Your task to perform on an android device: change the clock style Image 0: 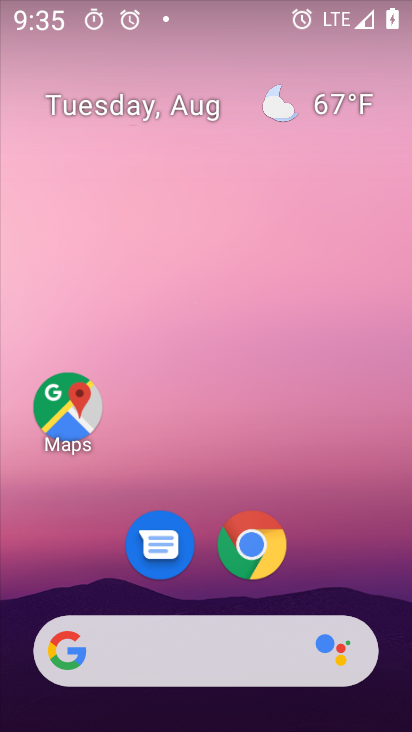
Step 0: drag from (235, 599) to (293, 3)
Your task to perform on an android device: change the clock style Image 1: 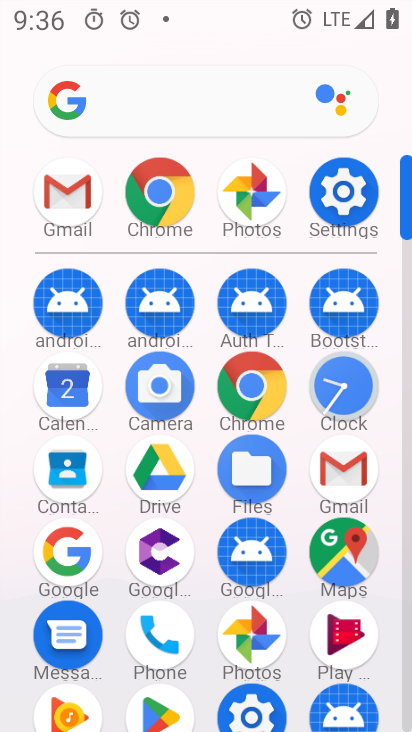
Step 1: click (341, 391)
Your task to perform on an android device: change the clock style Image 2: 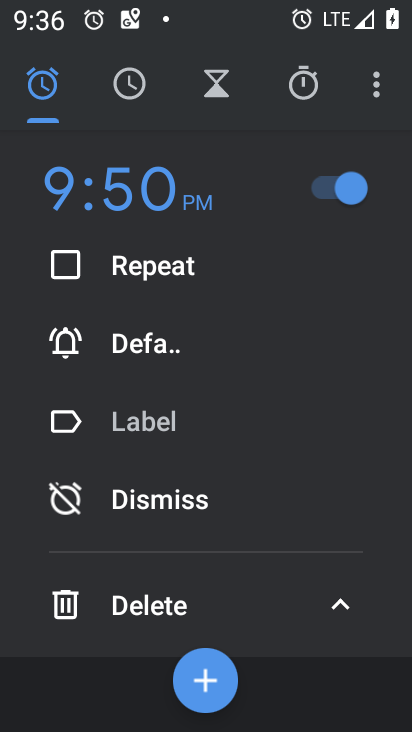
Step 2: click (377, 74)
Your task to perform on an android device: change the clock style Image 3: 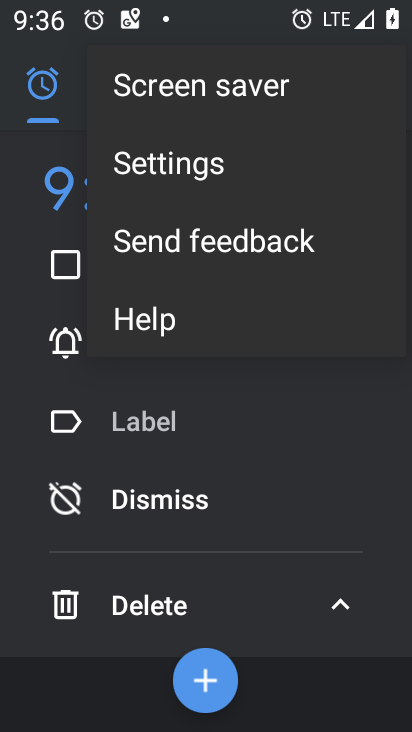
Step 3: click (216, 175)
Your task to perform on an android device: change the clock style Image 4: 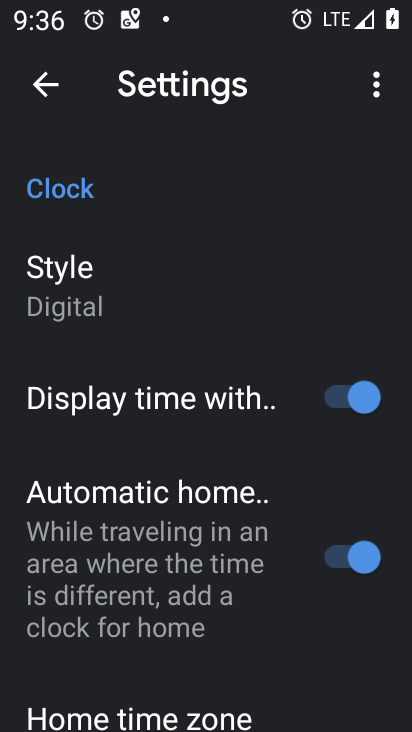
Step 4: click (101, 297)
Your task to perform on an android device: change the clock style Image 5: 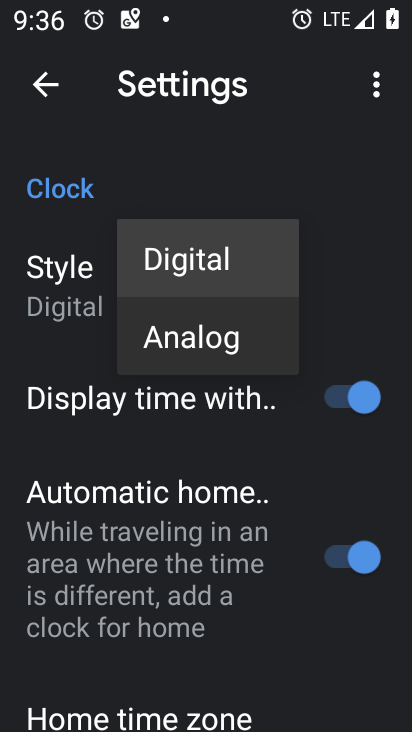
Step 5: click (180, 342)
Your task to perform on an android device: change the clock style Image 6: 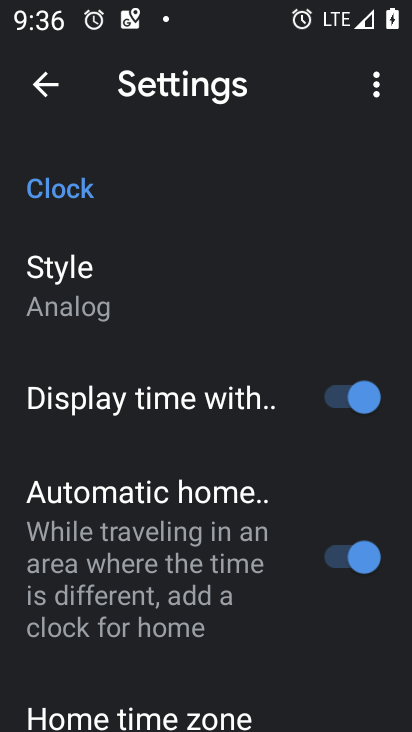
Step 6: task complete